Your task to perform on an android device: Open Reddit.com Image 0: 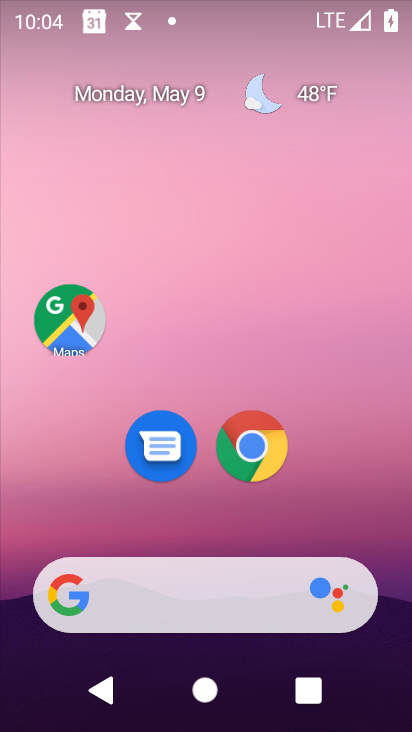
Step 0: click (249, 435)
Your task to perform on an android device: Open Reddit.com Image 1: 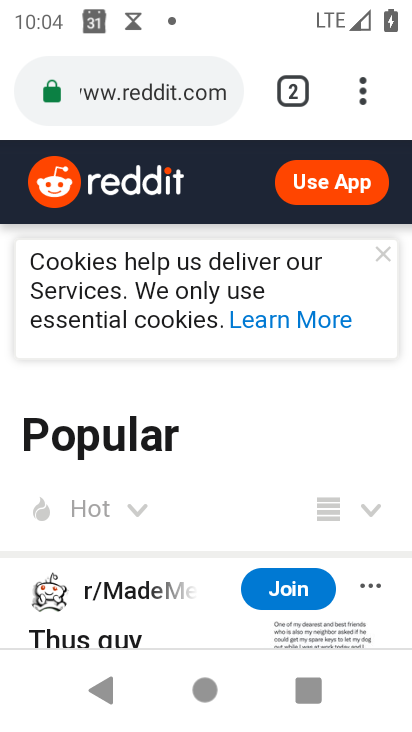
Step 1: task complete